Your task to perform on an android device: Search for 12ft 120W LED tube light on home depot Image 0: 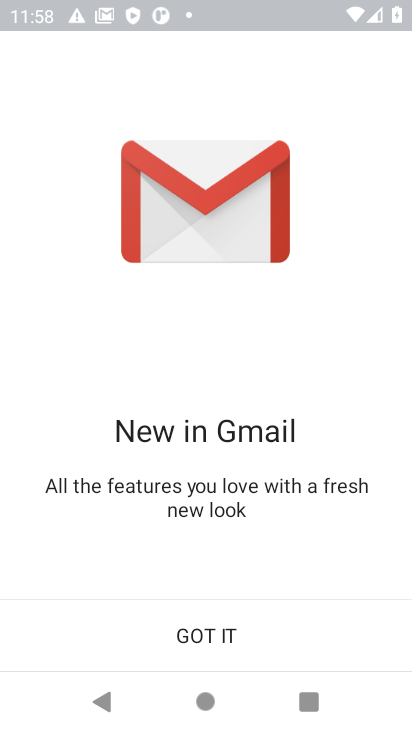
Step 0: press home button
Your task to perform on an android device: Search for 12ft 120W LED tube light on home depot Image 1: 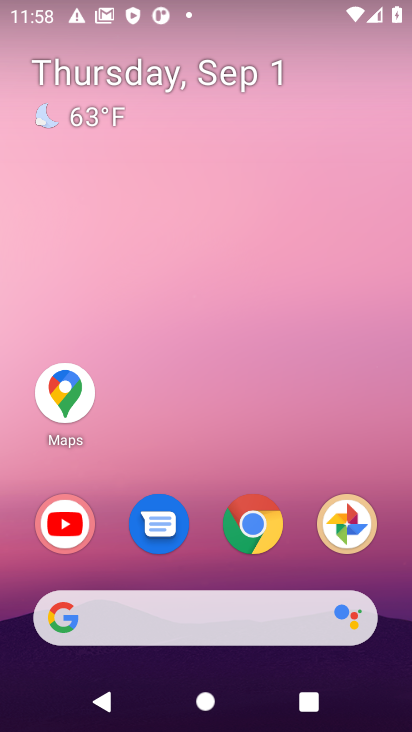
Step 1: click (244, 531)
Your task to perform on an android device: Search for 12ft 120W LED tube light on home depot Image 2: 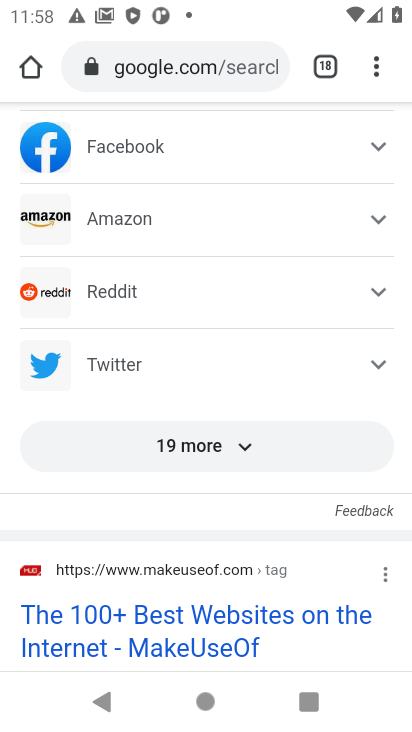
Step 2: click (328, 64)
Your task to perform on an android device: Search for 12ft 120W LED tube light on home depot Image 3: 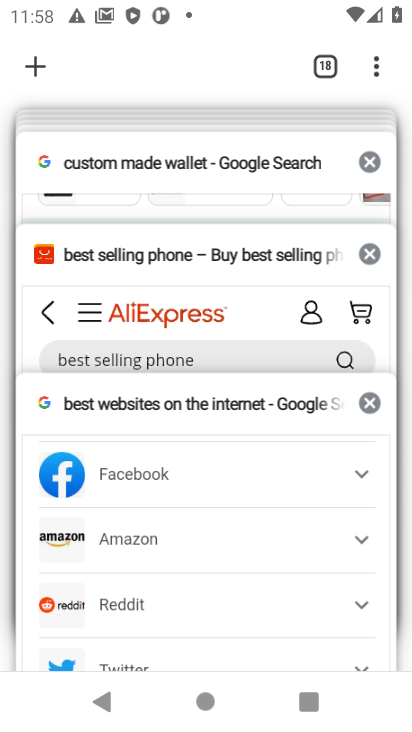
Step 3: drag from (193, 260) to (204, 624)
Your task to perform on an android device: Search for 12ft 120W LED tube light on home depot Image 4: 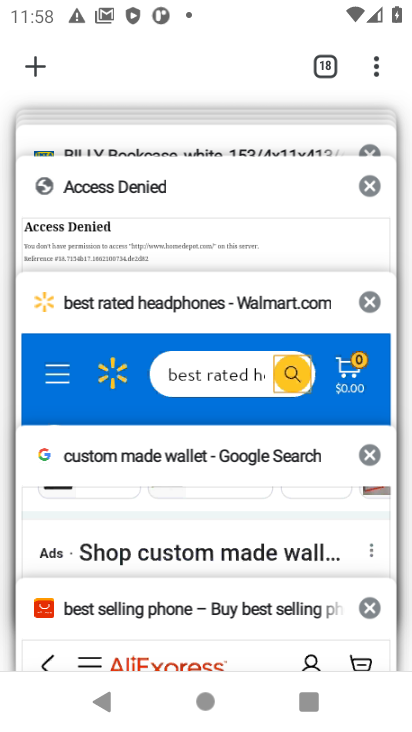
Step 4: drag from (173, 177) to (189, 365)
Your task to perform on an android device: Search for 12ft 120W LED tube light on home depot Image 5: 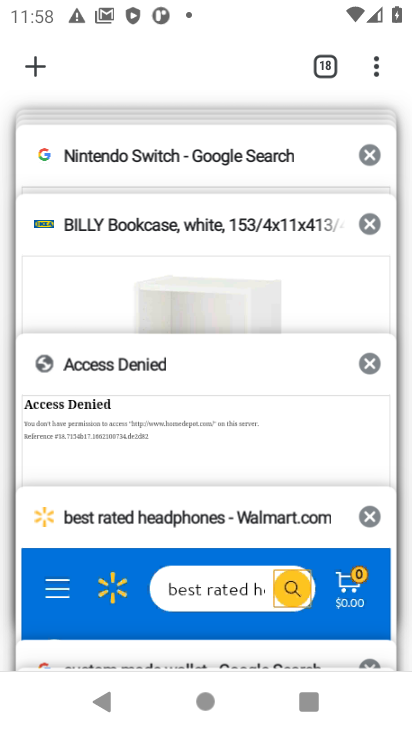
Step 5: click (189, 365)
Your task to perform on an android device: Search for 12ft 120W LED tube light on home depot Image 6: 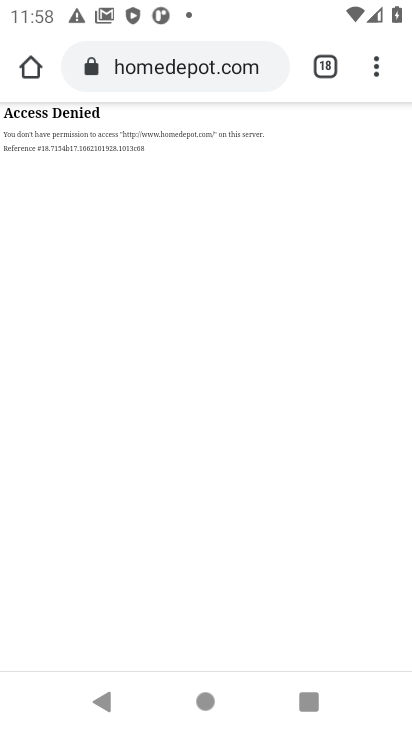
Step 6: click (241, 72)
Your task to perform on an android device: Search for 12ft 120W LED tube light on home depot Image 7: 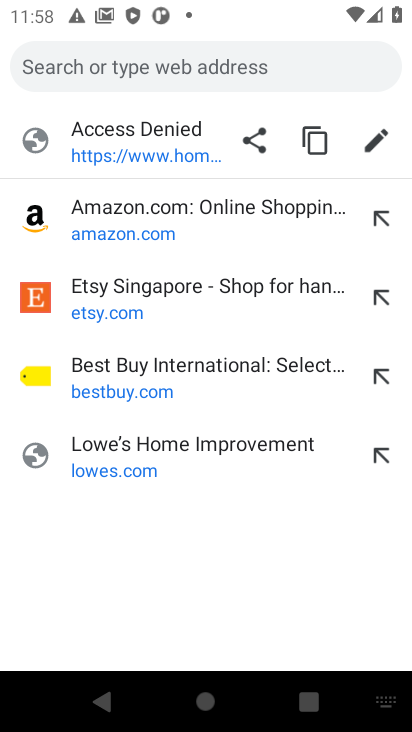
Step 7: click (157, 152)
Your task to perform on an android device: Search for 12ft 120W LED tube light on home depot Image 8: 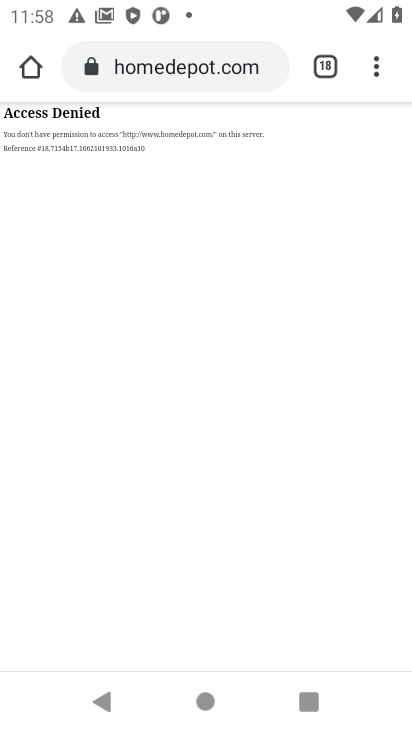
Step 8: click (326, 69)
Your task to perform on an android device: Search for 12ft 120W LED tube light on home depot Image 9: 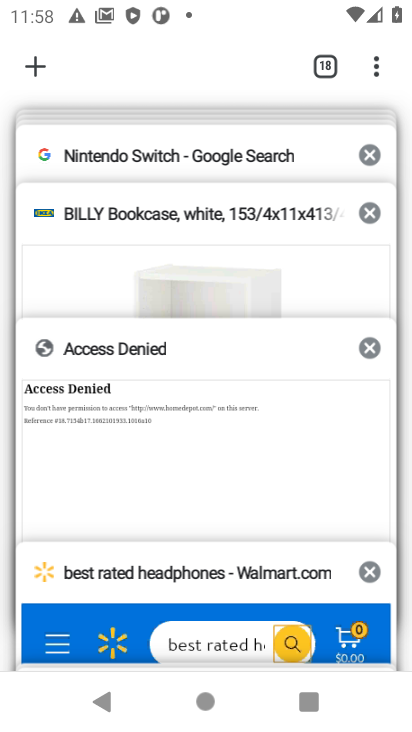
Step 9: click (30, 67)
Your task to perform on an android device: Search for 12ft 120W LED tube light on home depot Image 10: 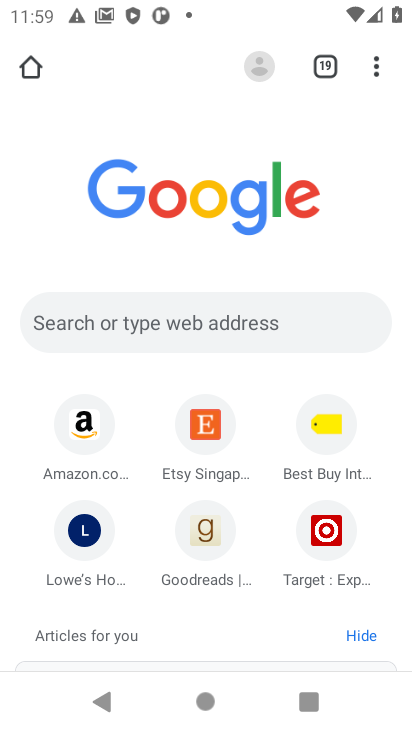
Step 10: click (133, 318)
Your task to perform on an android device: Search for 12ft 120W LED tube light on home depot Image 11: 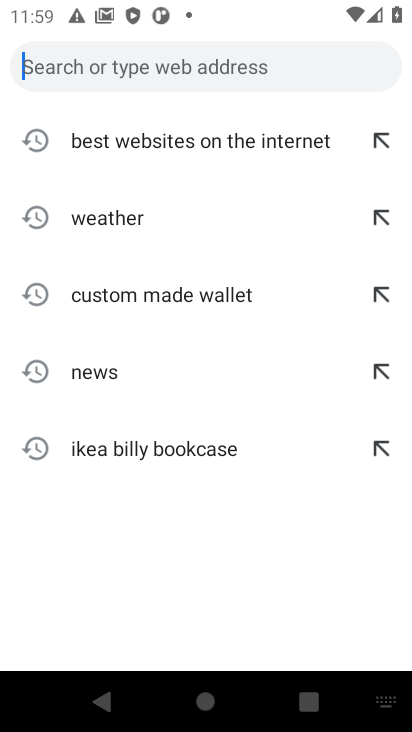
Step 11: type "home depot"
Your task to perform on an android device: Search for 12ft 120W LED tube light on home depot Image 12: 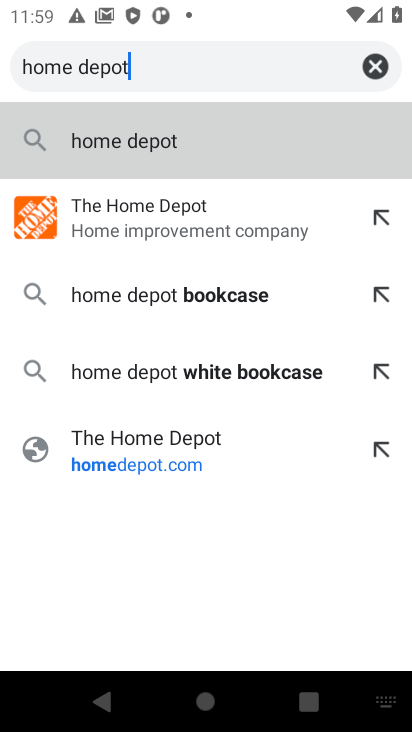
Step 12: click (153, 144)
Your task to perform on an android device: Search for 12ft 120W LED tube light on home depot Image 13: 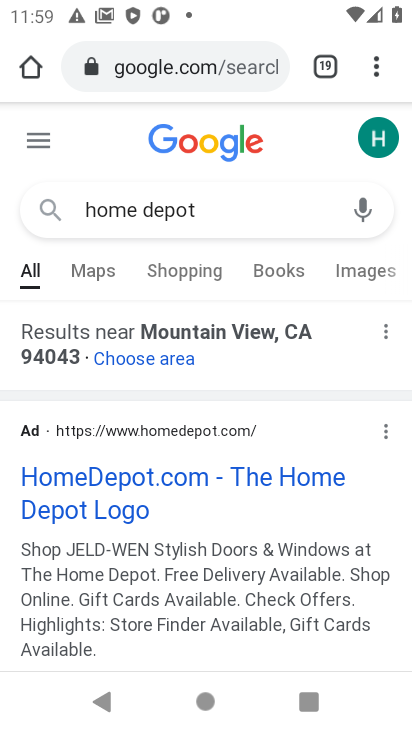
Step 13: click (79, 487)
Your task to perform on an android device: Search for 12ft 120W LED tube light on home depot Image 14: 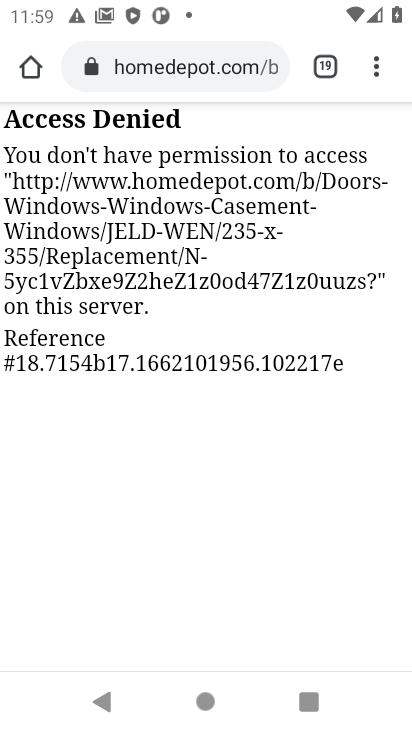
Step 14: task complete